Your task to perform on an android device: toggle data saver in the chrome app Image 0: 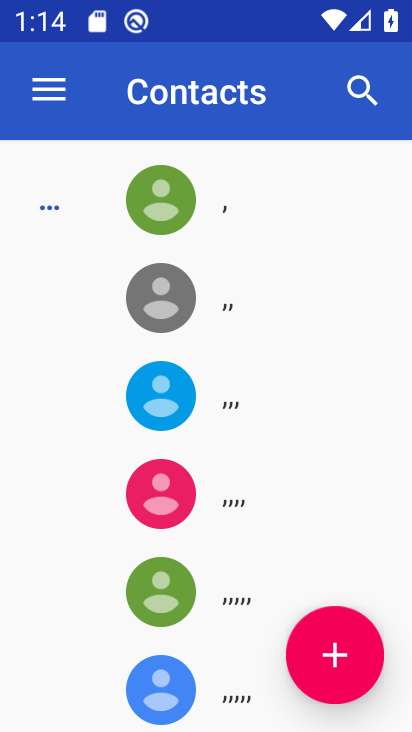
Step 0: press home button
Your task to perform on an android device: toggle data saver in the chrome app Image 1: 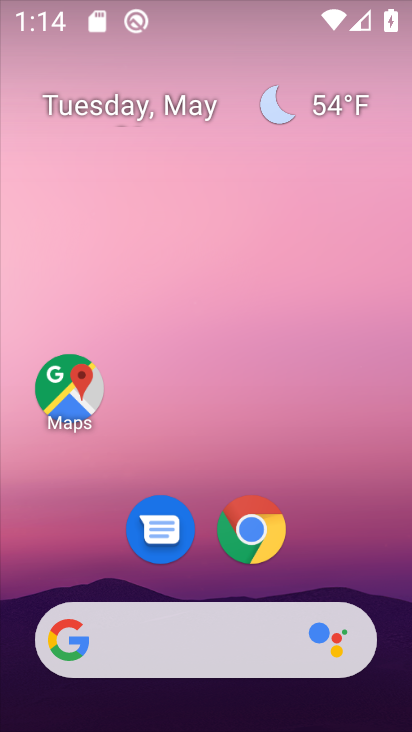
Step 1: drag from (327, 557) to (306, 238)
Your task to perform on an android device: toggle data saver in the chrome app Image 2: 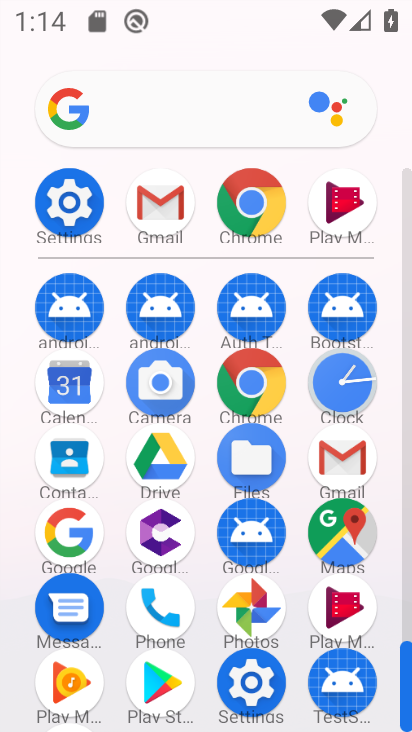
Step 2: click (231, 197)
Your task to perform on an android device: toggle data saver in the chrome app Image 3: 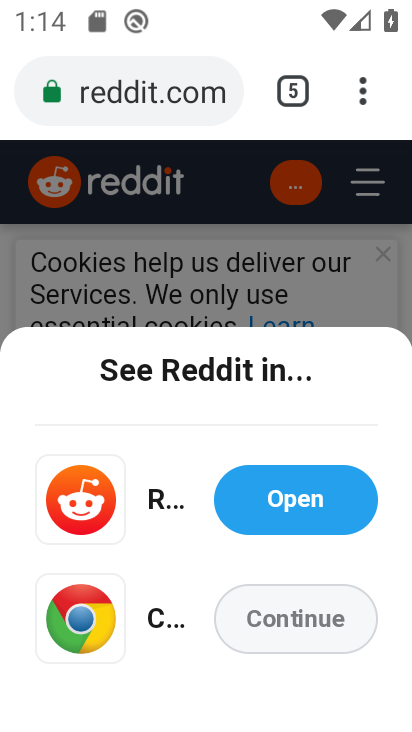
Step 3: click (362, 88)
Your task to perform on an android device: toggle data saver in the chrome app Image 4: 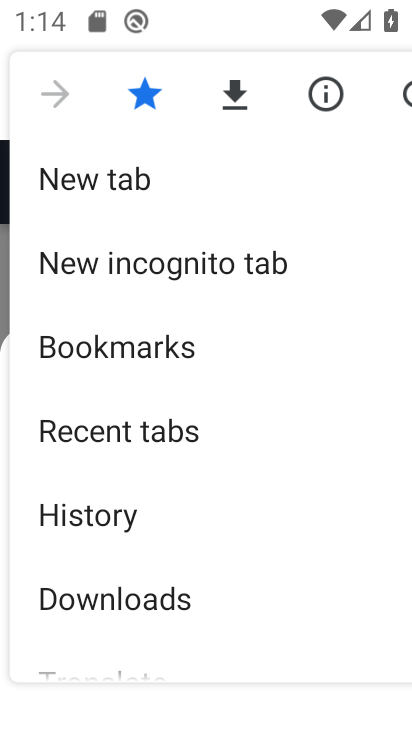
Step 4: drag from (165, 545) to (197, 275)
Your task to perform on an android device: toggle data saver in the chrome app Image 5: 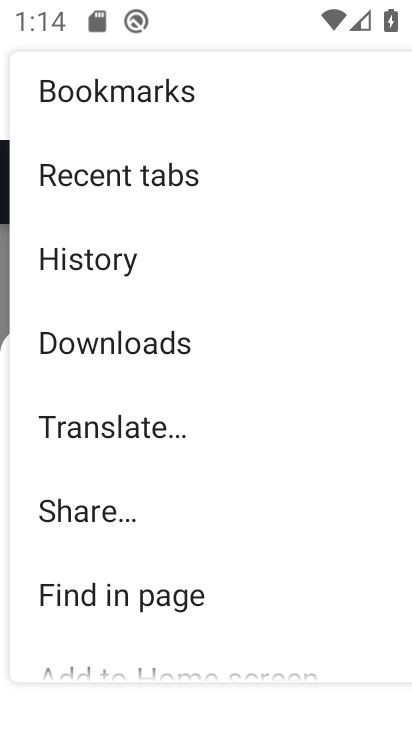
Step 5: drag from (138, 518) to (177, 278)
Your task to perform on an android device: toggle data saver in the chrome app Image 6: 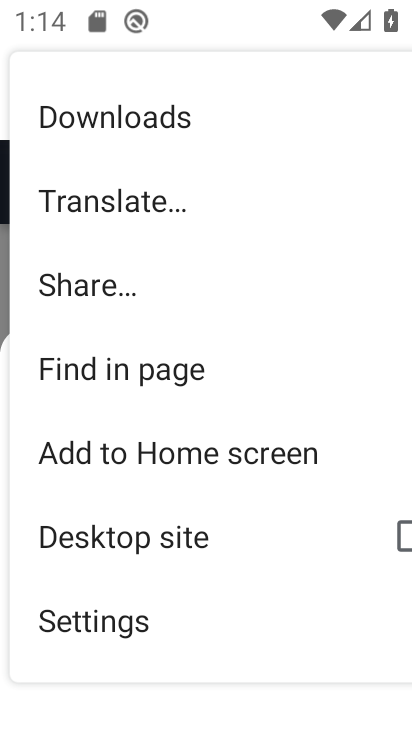
Step 6: click (127, 619)
Your task to perform on an android device: toggle data saver in the chrome app Image 7: 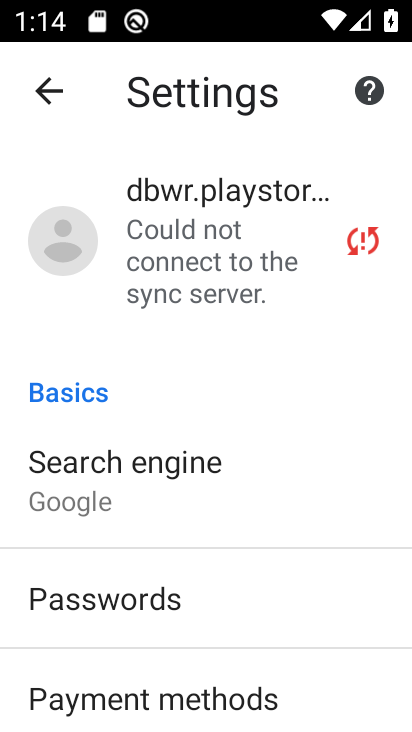
Step 7: drag from (235, 652) to (252, 319)
Your task to perform on an android device: toggle data saver in the chrome app Image 8: 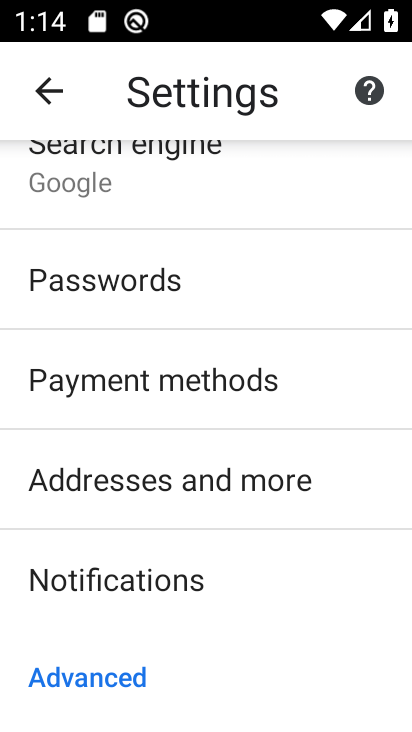
Step 8: drag from (263, 587) to (309, 225)
Your task to perform on an android device: toggle data saver in the chrome app Image 9: 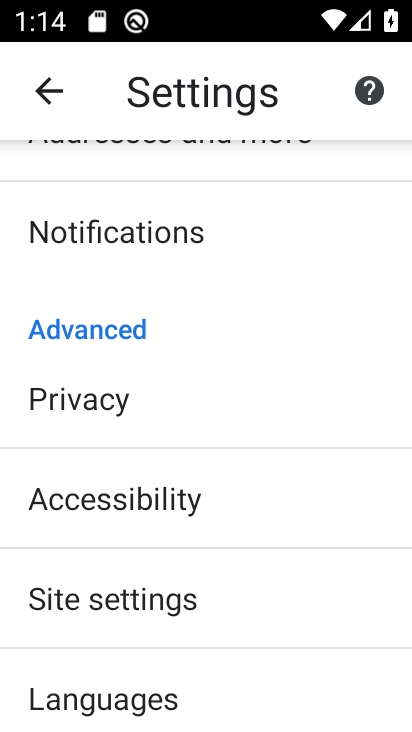
Step 9: drag from (250, 540) to (269, 299)
Your task to perform on an android device: toggle data saver in the chrome app Image 10: 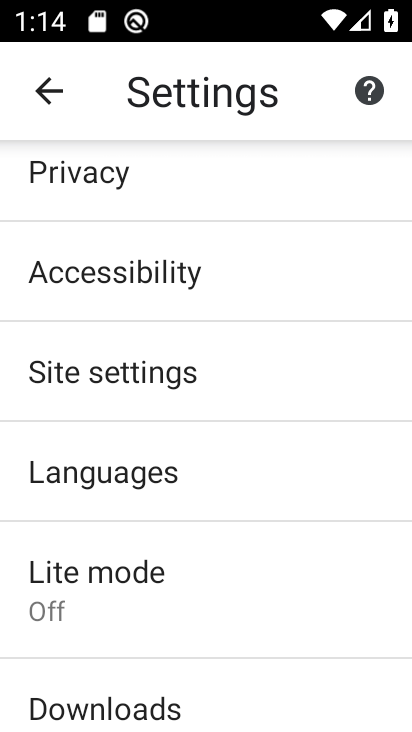
Step 10: click (184, 569)
Your task to perform on an android device: toggle data saver in the chrome app Image 11: 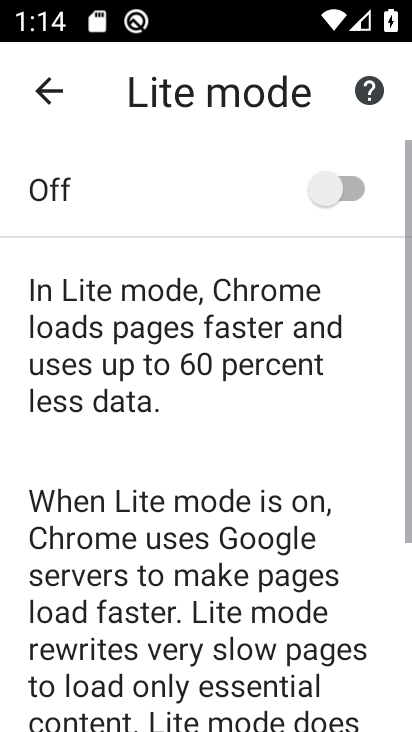
Step 11: click (300, 194)
Your task to perform on an android device: toggle data saver in the chrome app Image 12: 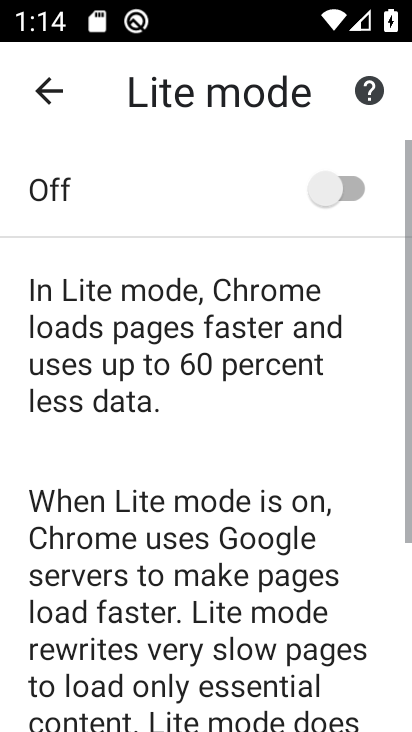
Step 12: click (314, 193)
Your task to perform on an android device: toggle data saver in the chrome app Image 13: 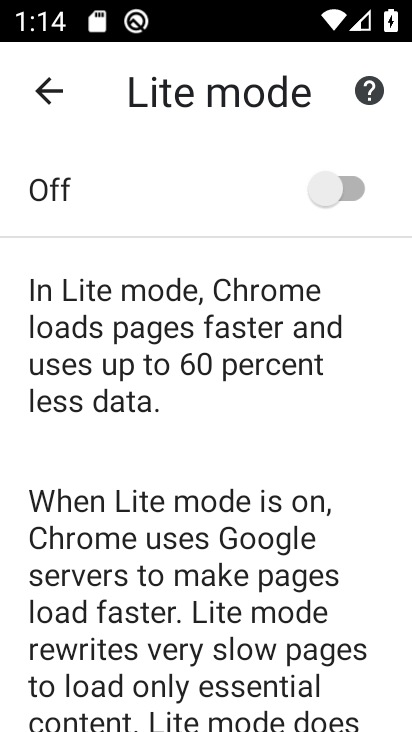
Step 13: click (316, 193)
Your task to perform on an android device: toggle data saver in the chrome app Image 14: 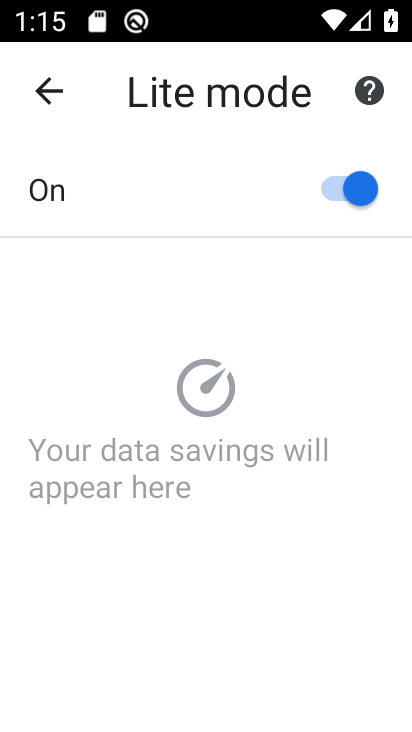
Step 14: task complete